Your task to perform on an android device: toggle priority inbox in the gmail app Image 0: 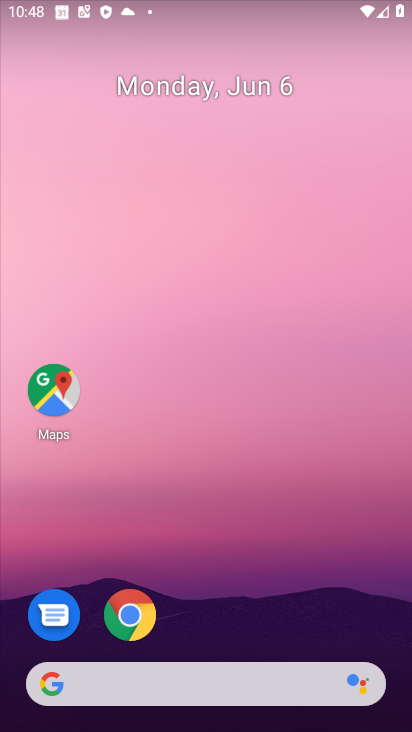
Step 0: drag from (281, 615) to (244, 250)
Your task to perform on an android device: toggle priority inbox in the gmail app Image 1: 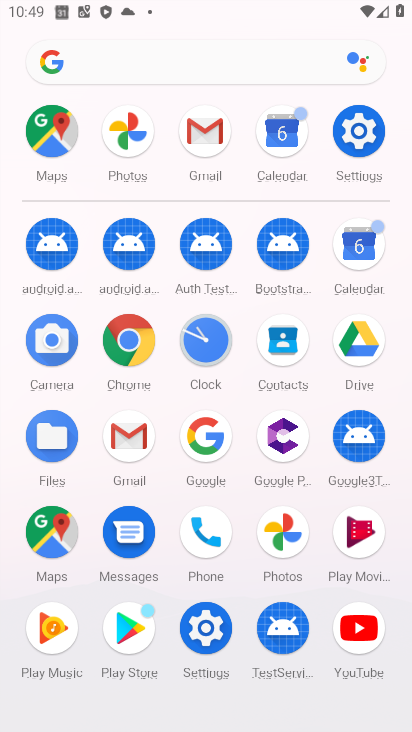
Step 1: click (217, 163)
Your task to perform on an android device: toggle priority inbox in the gmail app Image 2: 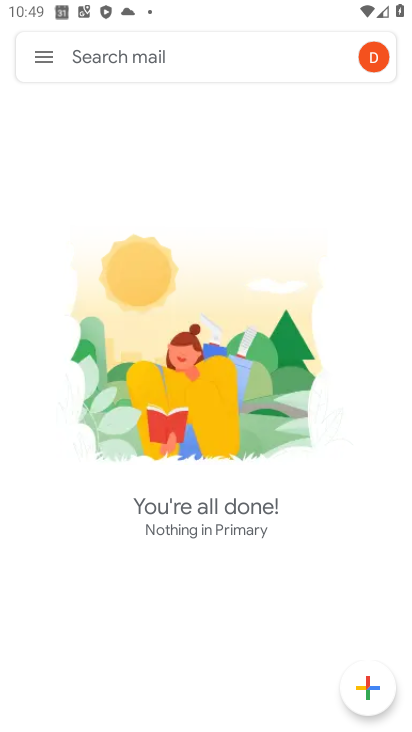
Step 2: task complete